Your task to perform on an android device: open app "Nova Launcher" Image 0: 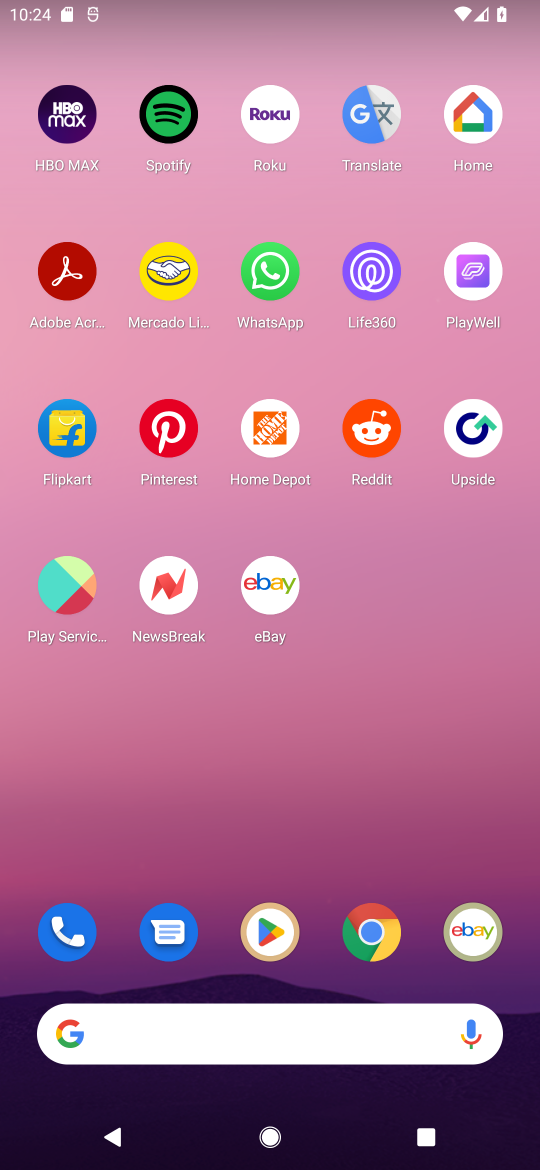
Step 0: click (266, 941)
Your task to perform on an android device: open app "Nova Launcher" Image 1: 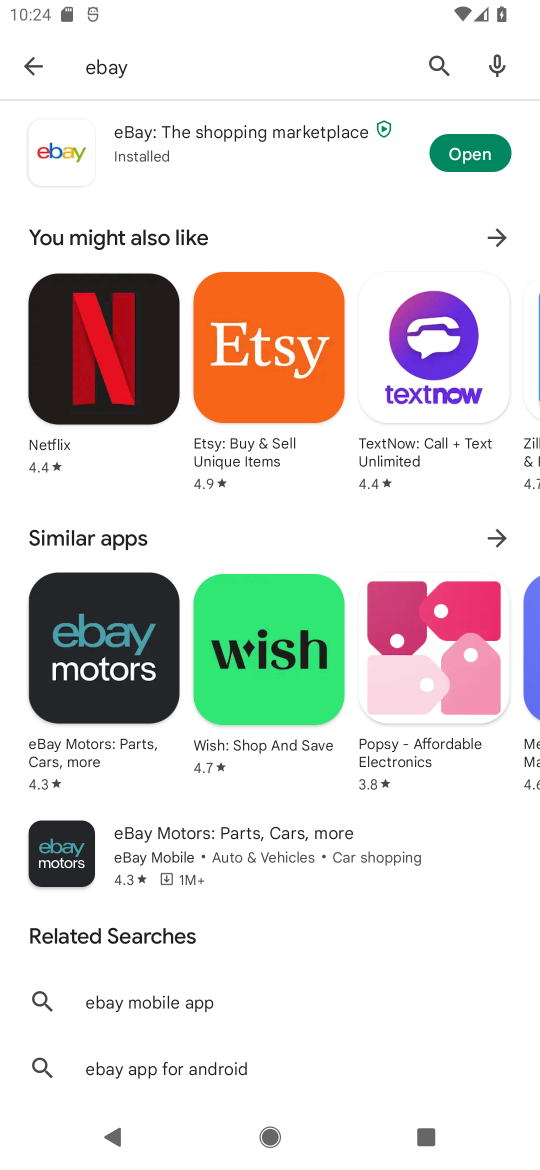
Step 1: click (447, 67)
Your task to perform on an android device: open app "Nova Launcher" Image 2: 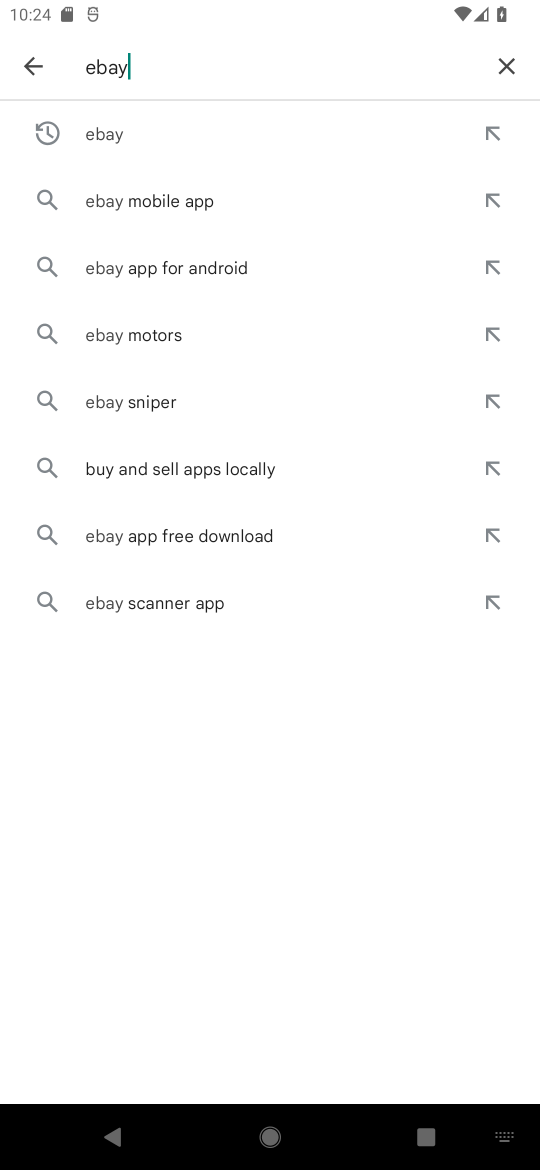
Step 2: click (514, 70)
Your task to perform on an android device: open app "Nova Launcher" Image 3: 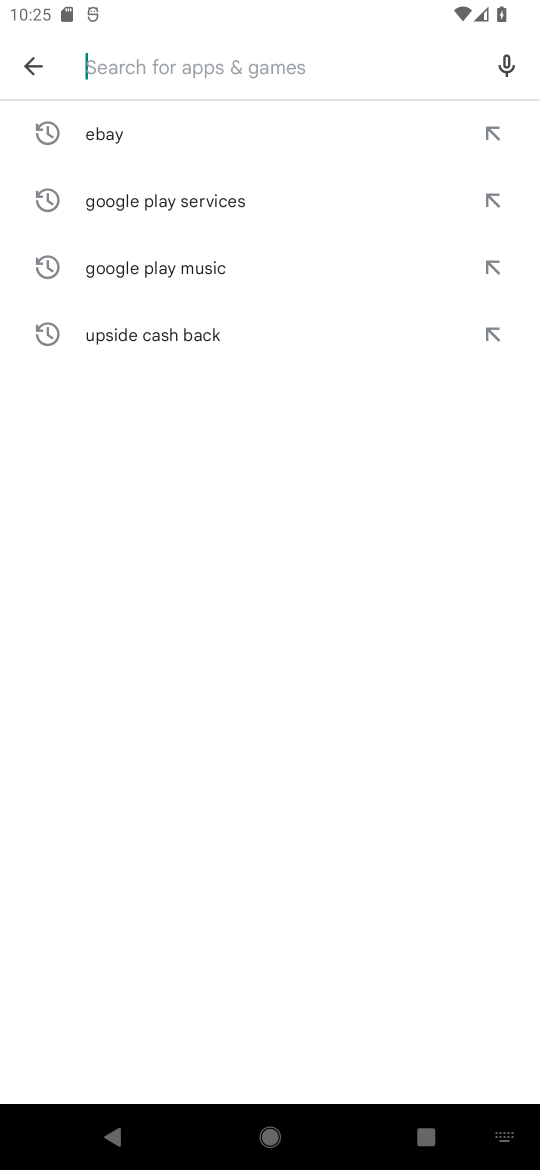
Step 3: click (148, 64)
Your task to perform on an android device: open app "Nova Launcher" Image 4: 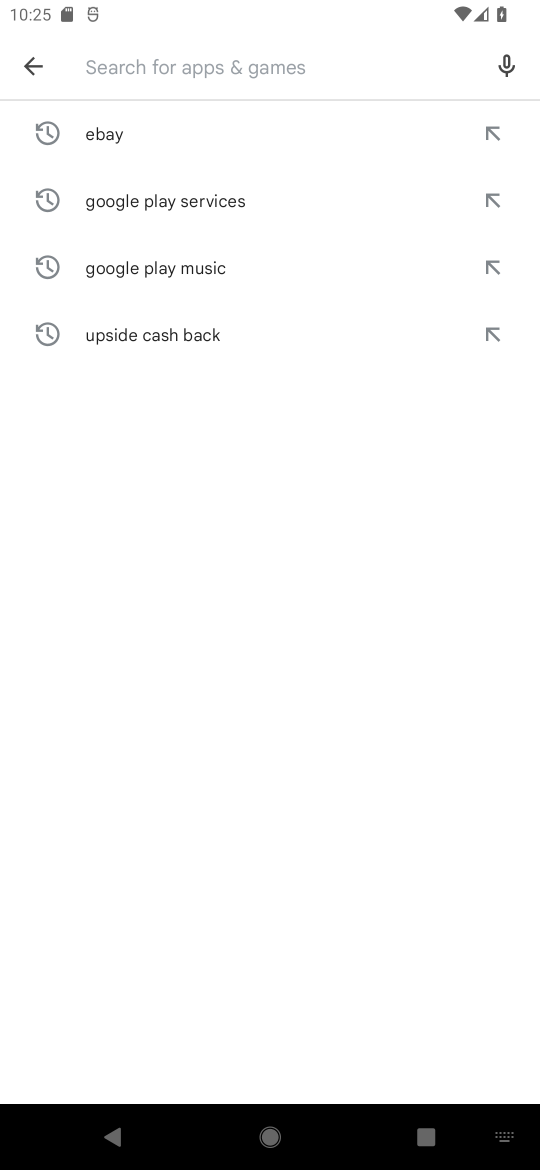
Step 4: type "Nova Launcher"
Your task to perform on an android device: open app "Nova Launcher" Image 5: 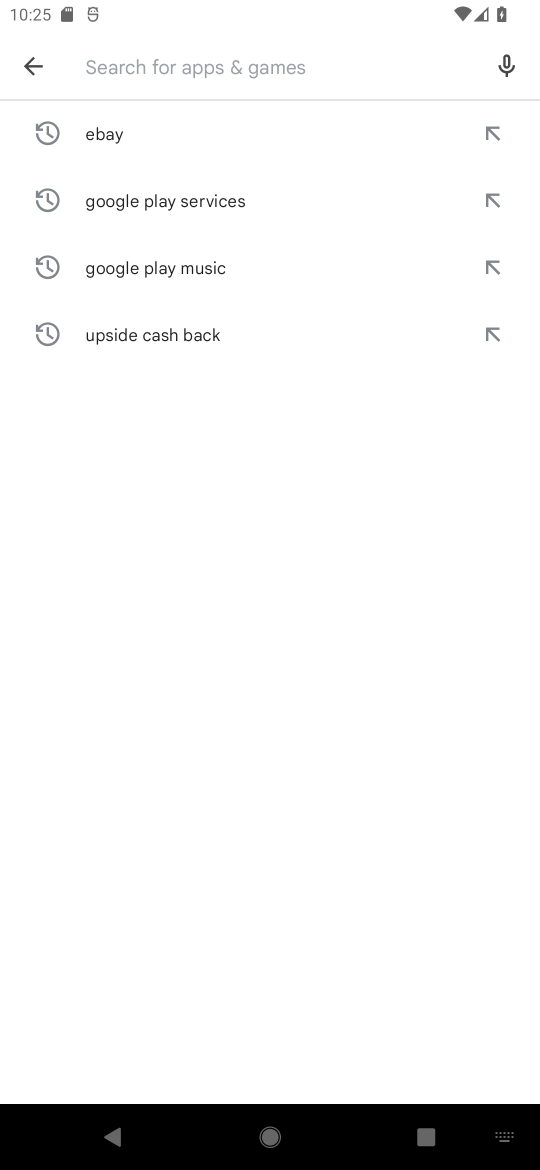
Step 5: click (64, 746)
Your task to perform on an android device: open app "Nova Launcher" Image 6: 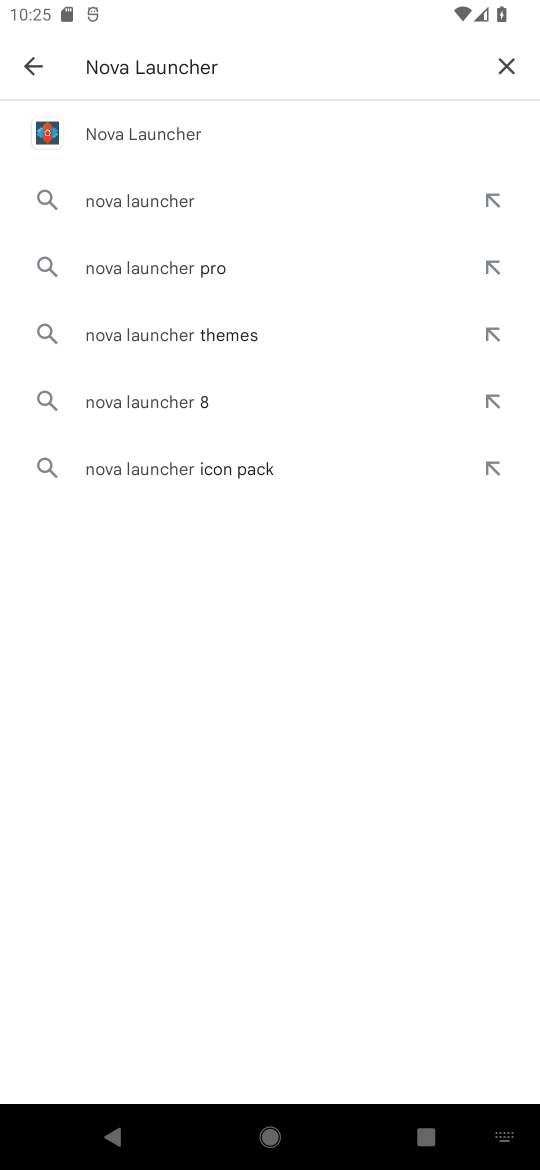
Step 6: click (120, 136)
Your task to perform on an android device: open app "Nova Launcher" Image 7: 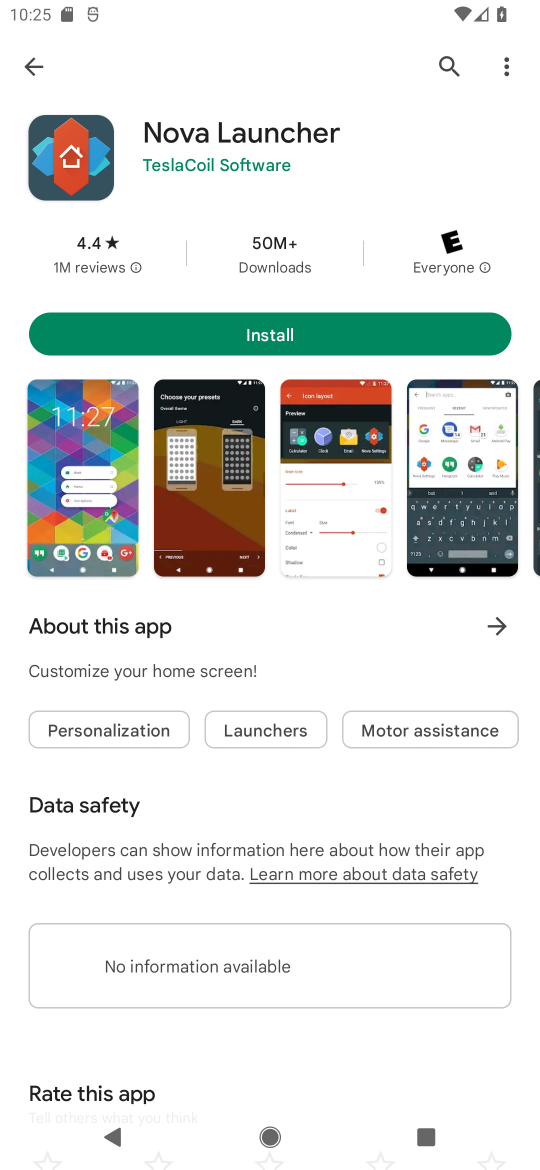
Step 7: click (273, 344)
Your task to perform on an android device: open app "Nova Launcher" Image 8: 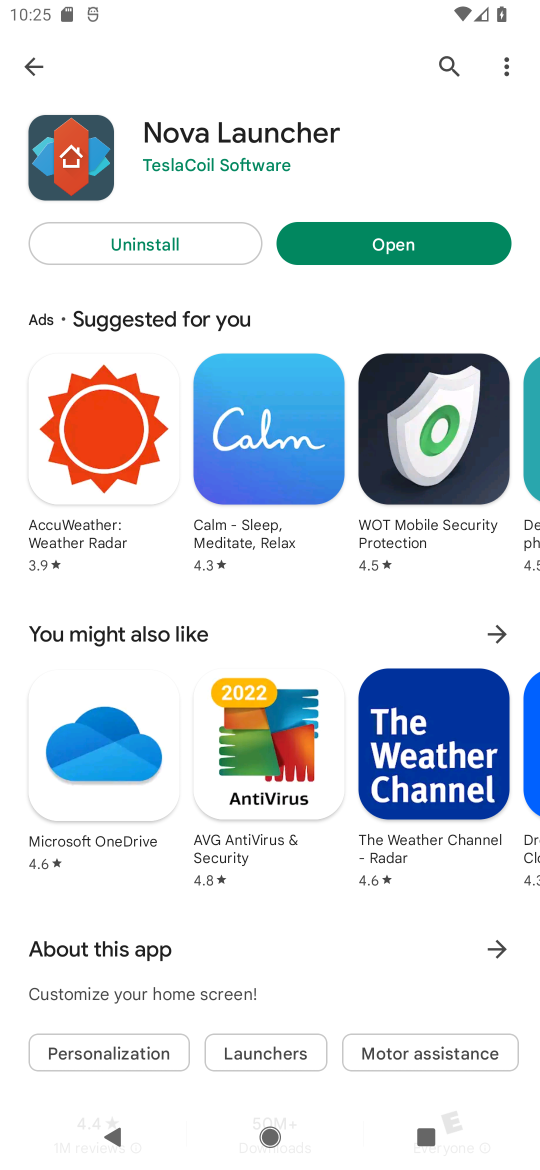
Step 8: click (448, 235)
Your task to perform on an android device: open app "Nova Launcher" Image 9: 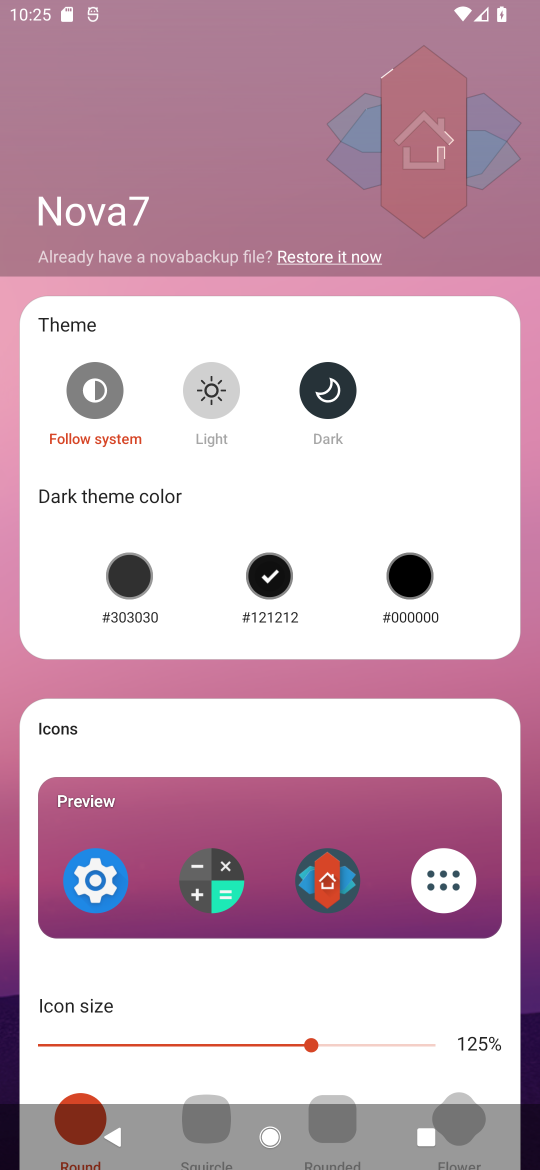
Step 9: task complete